Your task to perform on an android device: Go to Android settings Image 0: 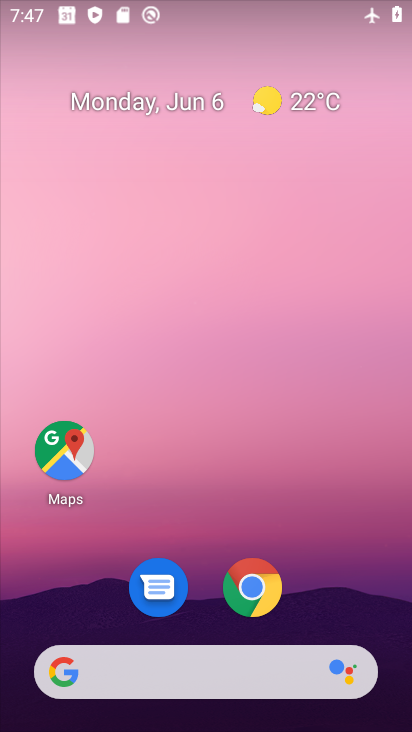
Step 0: drag from (222, 599) to (245, 382)
Your task to perform on an android device: Go to Android settings Image 1: 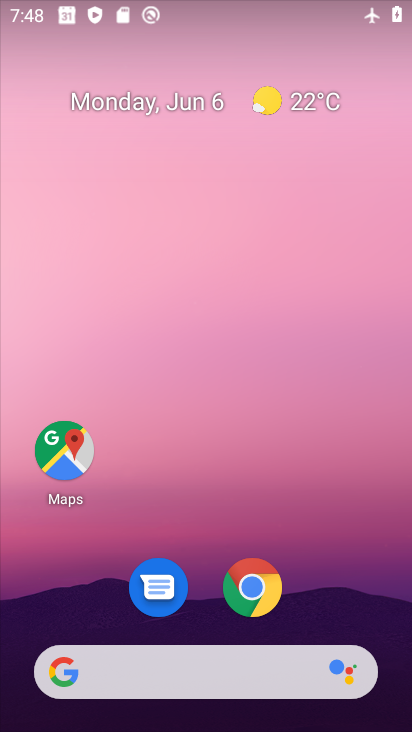
Step 1: drag from (234, 428) to (234, 348)
Your task to perform on an android device: Go to Android settings Image 2: 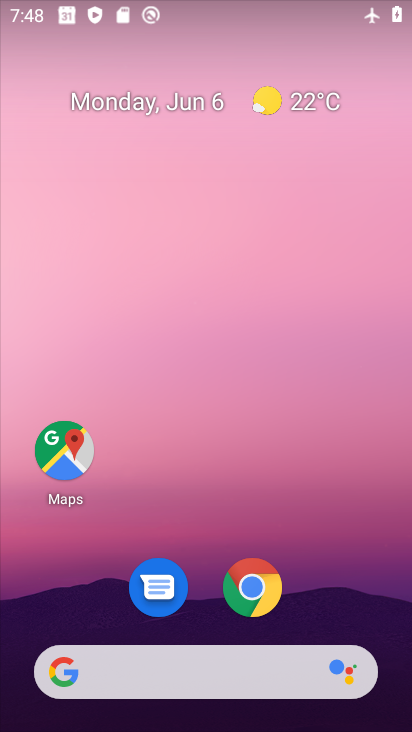
Step 2: drag from (182, 572) to (176, 255)
Your task to perform on an android device: Go to Android settings Image 3: 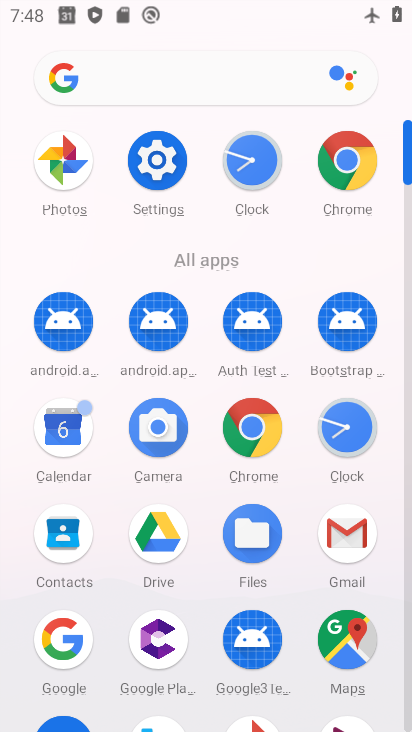
Step 3: click (148, 182)
Your task to perform on an android device: Go to Android settings Image 4: 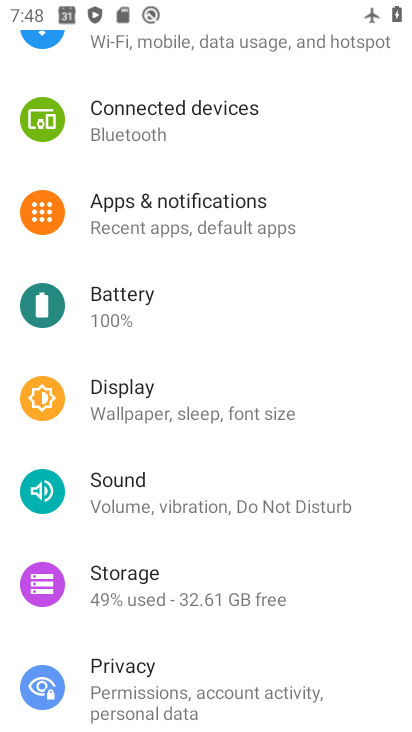
Step 4: task complete